Your task to perform on an android device: When is my next meeting? Image 0: 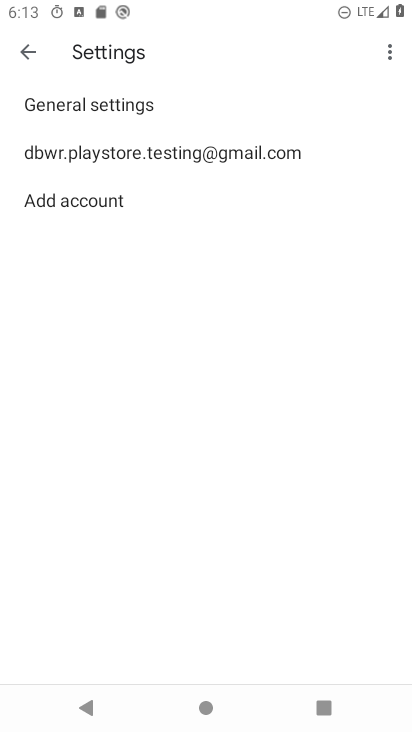
Step 0: press home button
Your task to perform on an android device: When is my next meeting? Image 1: 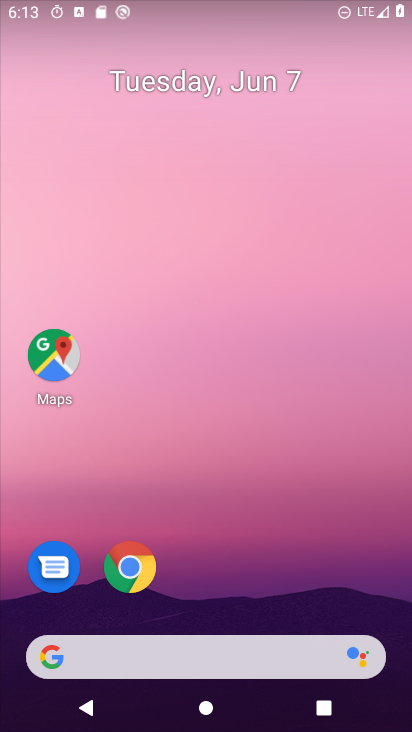
Step 1: drag from (34, 270) to (378, 285)
Your task to perform on an android device: When is my next meeting? Image 2: 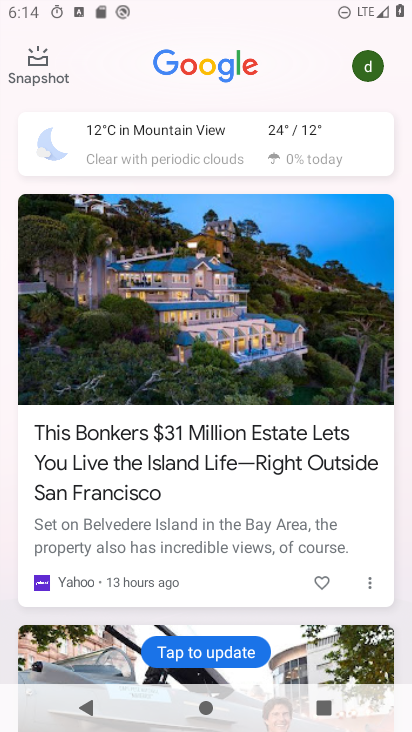
Step 2: press home button
Your task to perform on an android device: When is my next meeting? Image 3: 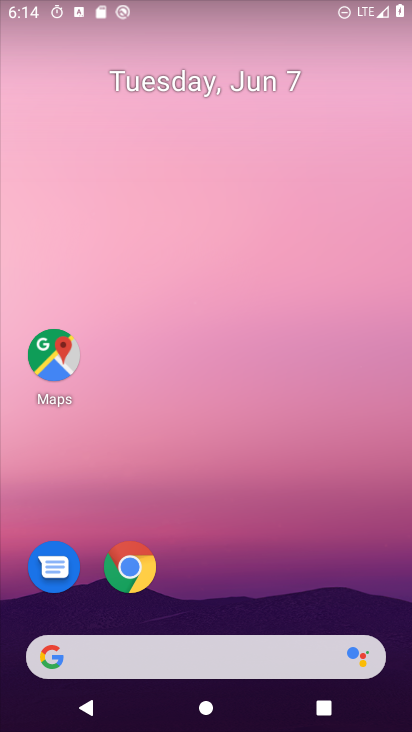
Step 3: drag from (286, 610) to (381, 42)
Your task to perform on an android device: When is my next meeting? Image 4: 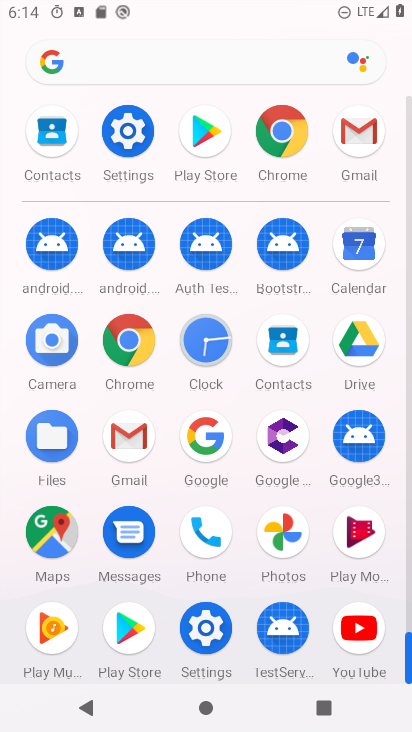
Step 4: click (362, 262)
Your task to perform on an android device: When is my next meeting? Image 5: 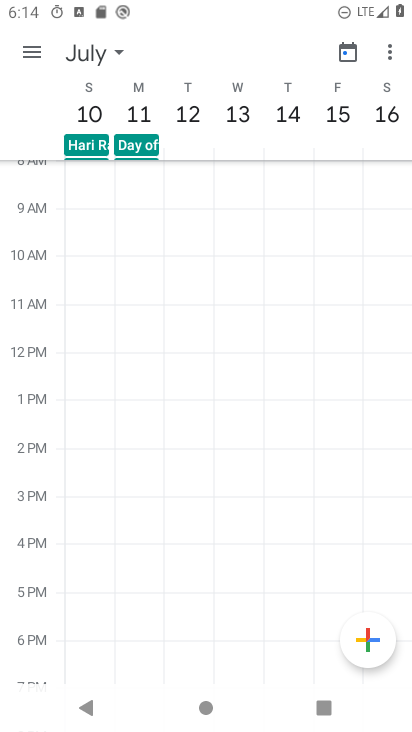
Step 5: click (116, 44)
Your task to perform on an android device: When is my next meeting? Image 6: 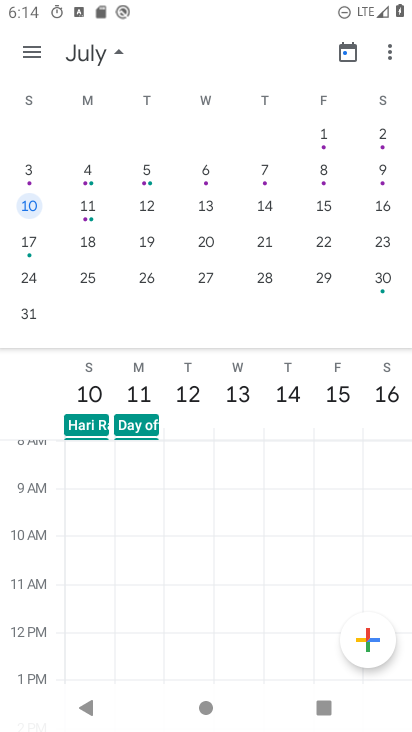
Step 6: task complete